Your task to perform on an android device: open app "Microsoft Authenticator" Image 0: 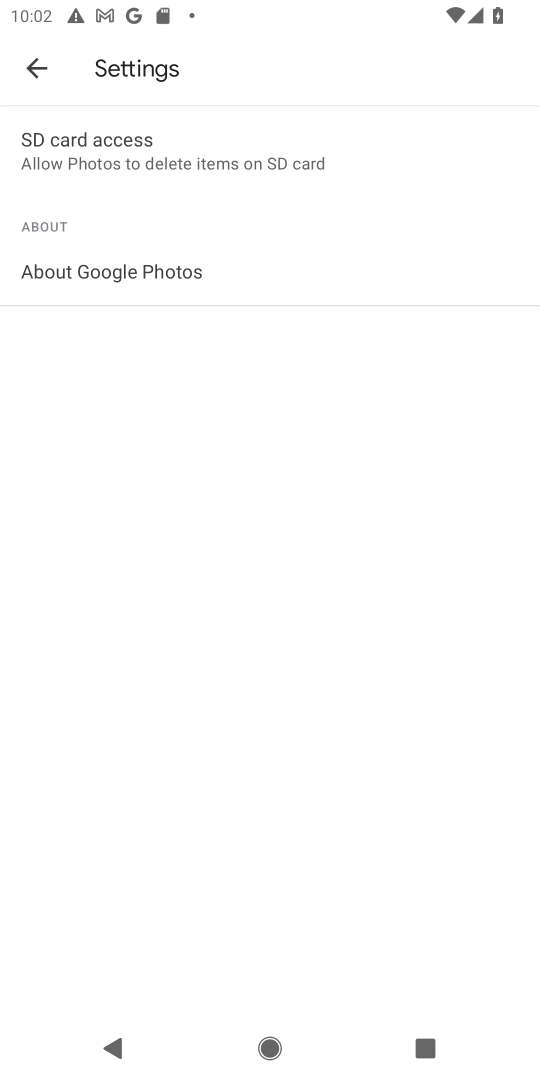
Step 0: press home button
Your task to perform on an android device: open app "Microsoft Authenticator" Image 1: 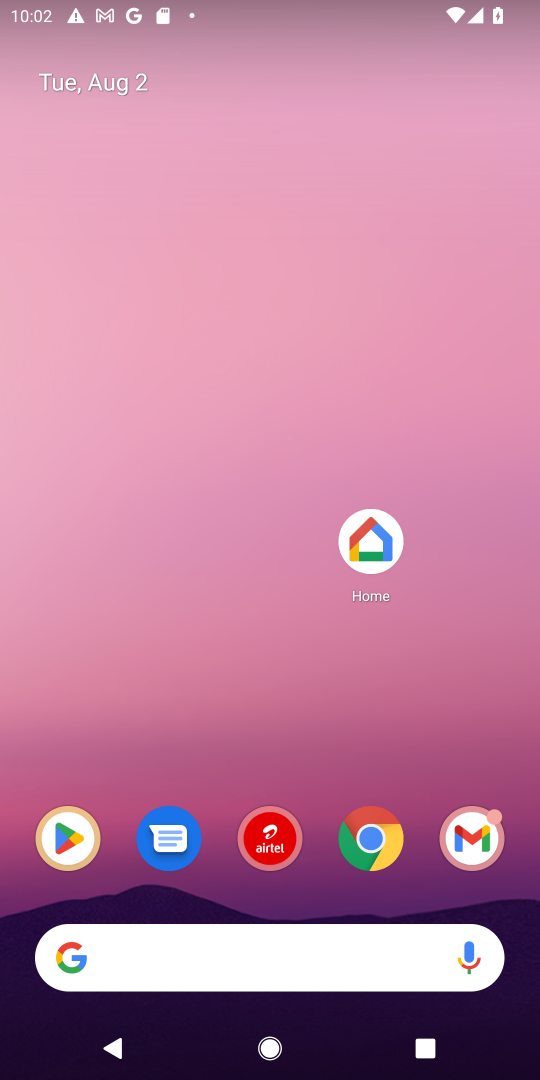
Step 1: drag from (240, 744) to (292, 187)
Your task to perform on an android device: open app "Microsoft Authenticator" Image 2: 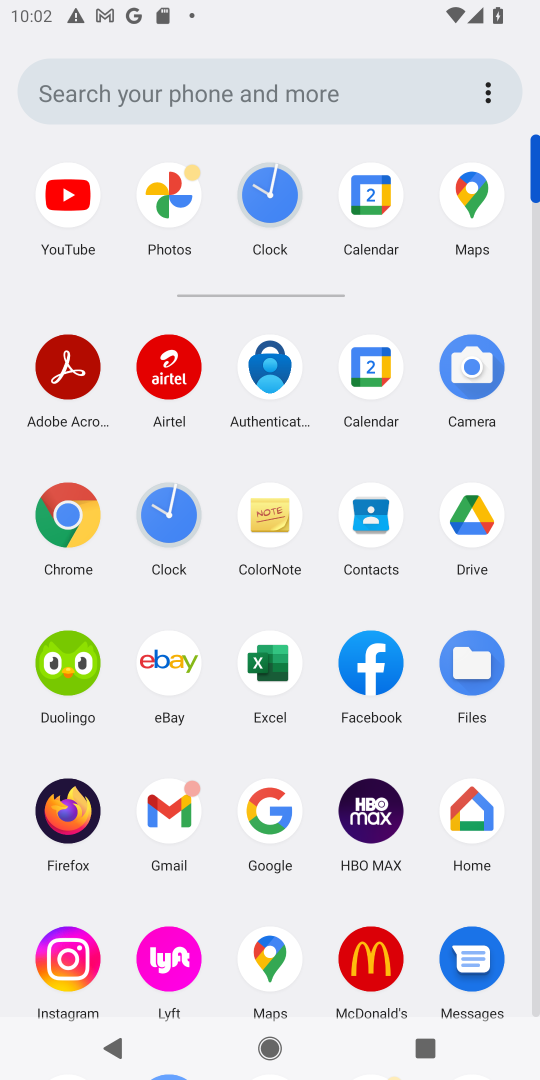
Step 2: drag from (212, 894) to (237, 484)
Your task to perform on an android device: open app "Microsoft Authenticator" Image 3: 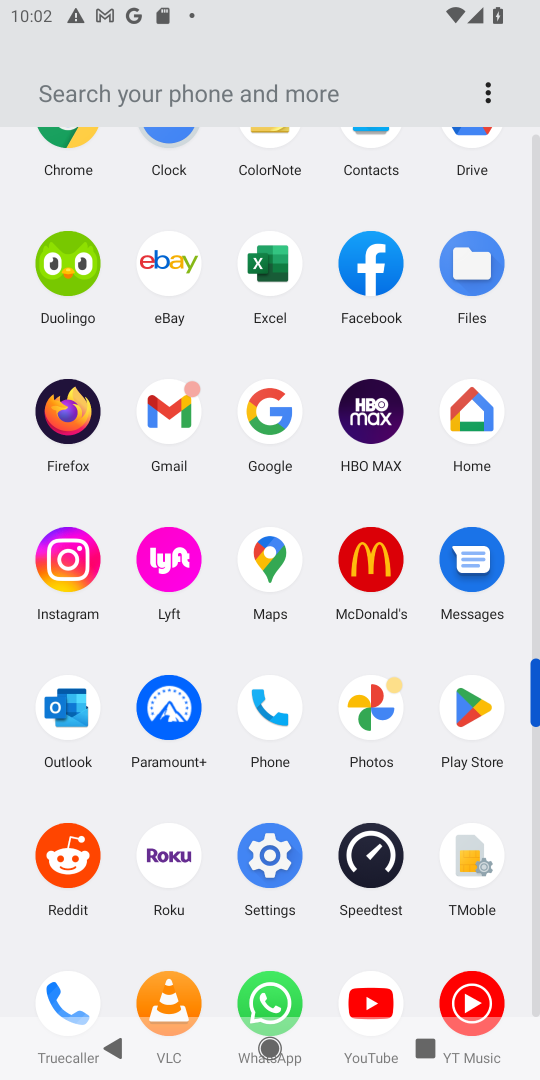
Step 3: click (467, 718)
Your task to perform on an android device: open app "Microsoft Authenticator" Image 4: 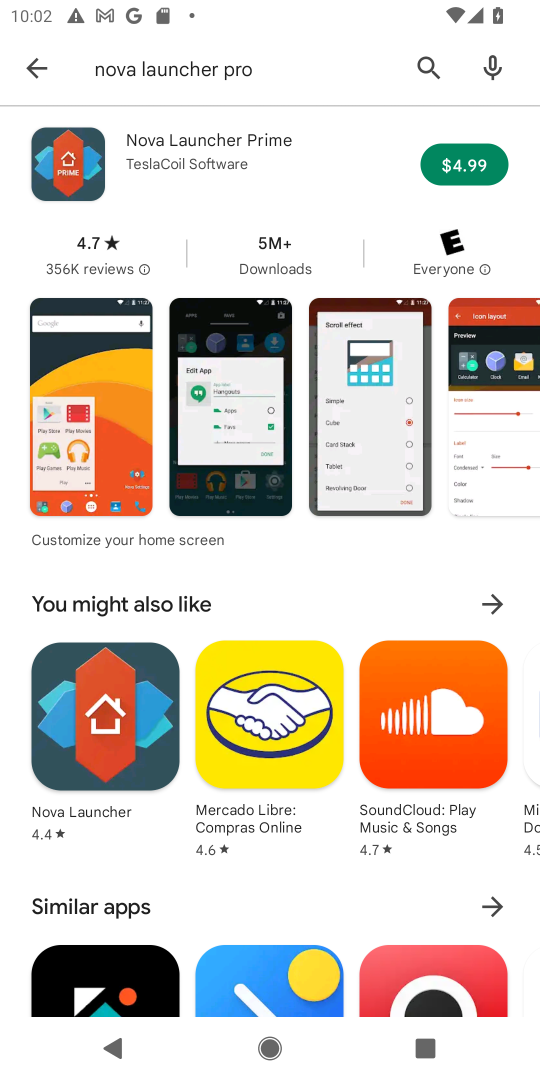
Step 4: click (425, 55)
Your task to perform on an android device: open app "Microsoft Authenticator" Image 5: 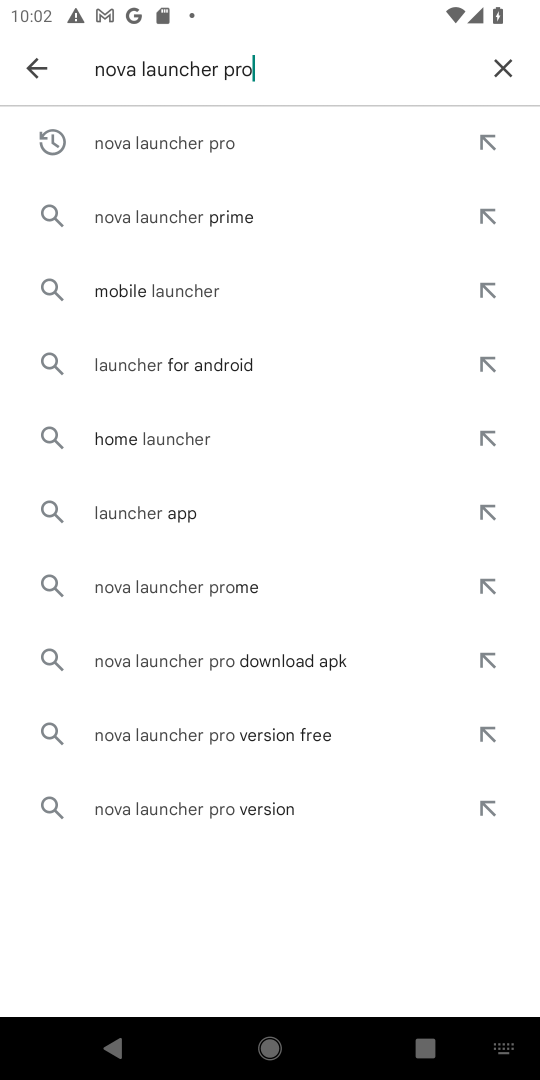
Step 5: click (499, 69)
Your task to perform on an android device: open app "Microsoft Authenticator" Image 6: 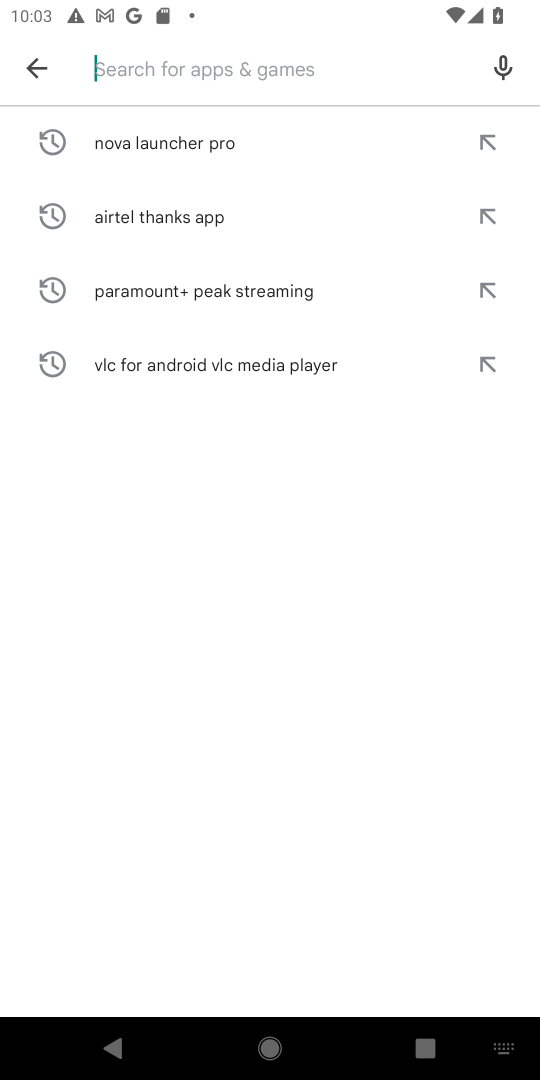
Step 6: click (398, 73)
Your task to perform on an android device: open app "Microsoft Authenticator" Image 7: 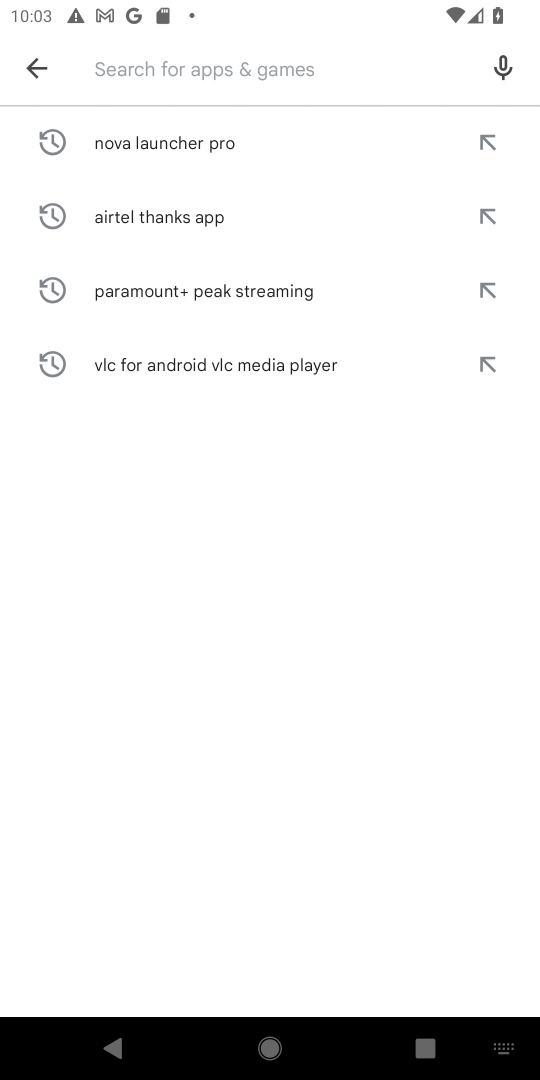
Step 7: type "microsoft authenticator"
Your task to perform on an android device: open app "Microsoft Authenticator" Image 8: 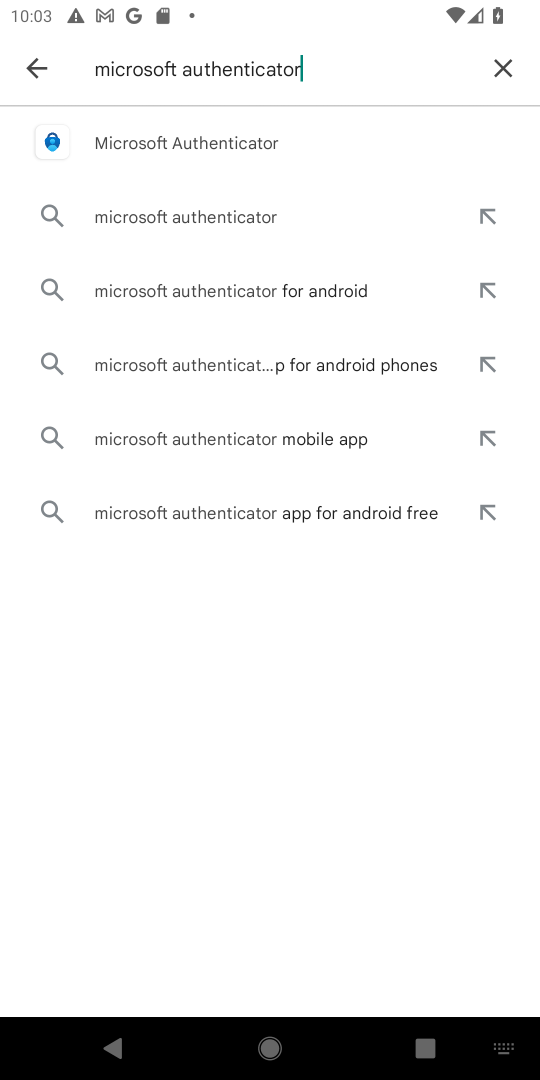
Step 8: click (306, 142)
Your task to perform on an android device: open app "Microsoft Authenticator" Image 9: 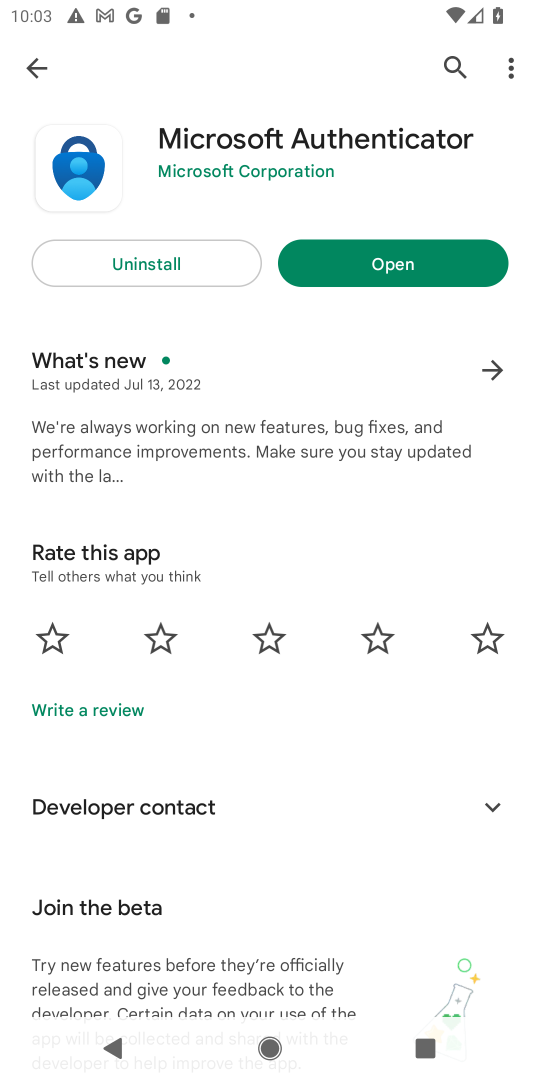
Step 9: click (469, 266)
Your task to perform on an android device: open app "Microsoft Authenticator" Image 10: 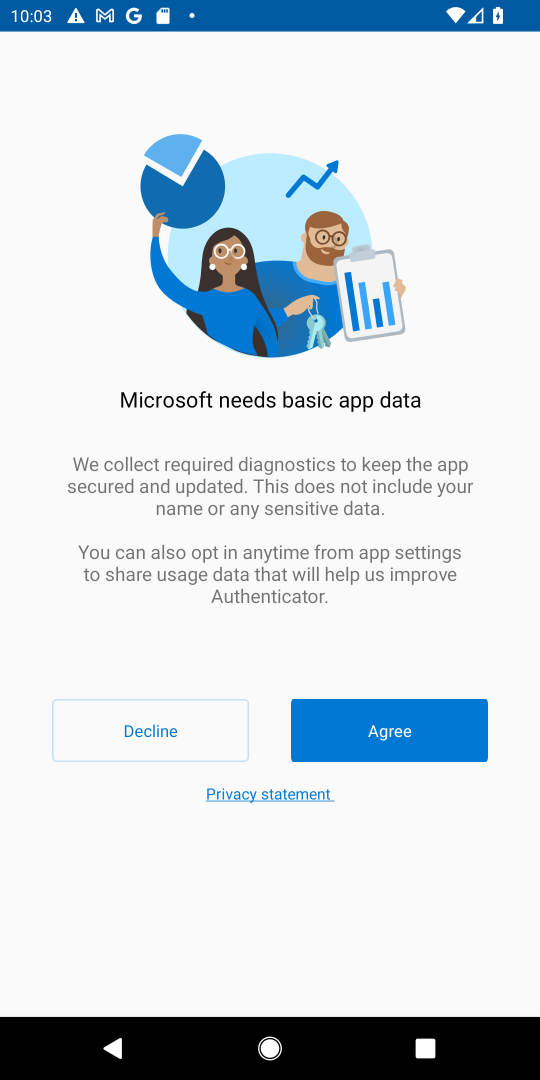
Step 10: task complete